Your task to perform on an android device: Open Yahoo.com Image 0: 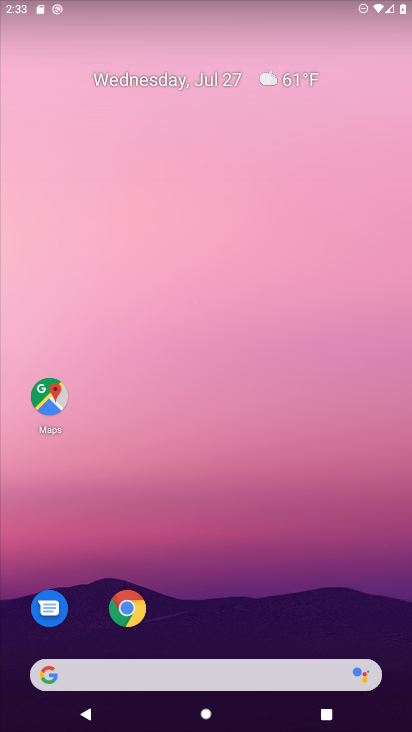
Step 0: click (124, 611)
Your task to perform on an android device: Open Yahoo.com Image 1: 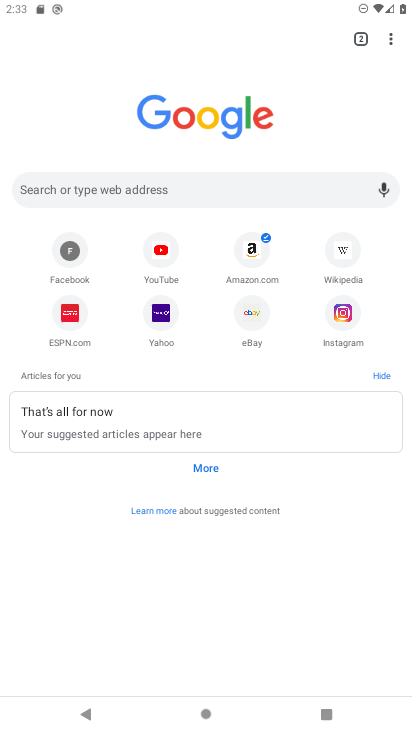
Step 1: click (167, 321)
Your task to perform on an android device: Open Yahoo.com Image 2: 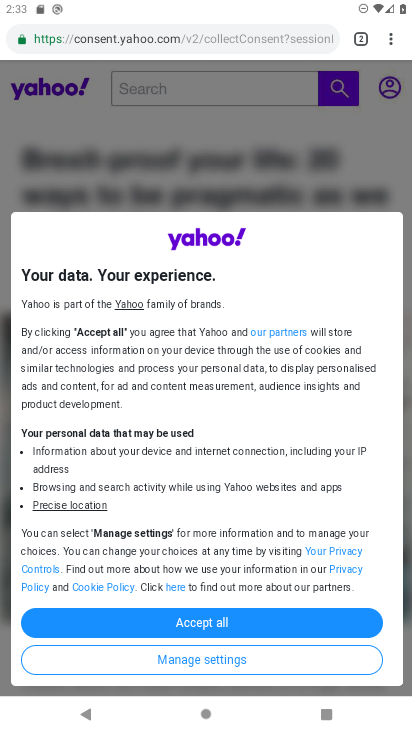
Step 2: task complete